Your task to perform on an android device: Go to internet settings Image 0: 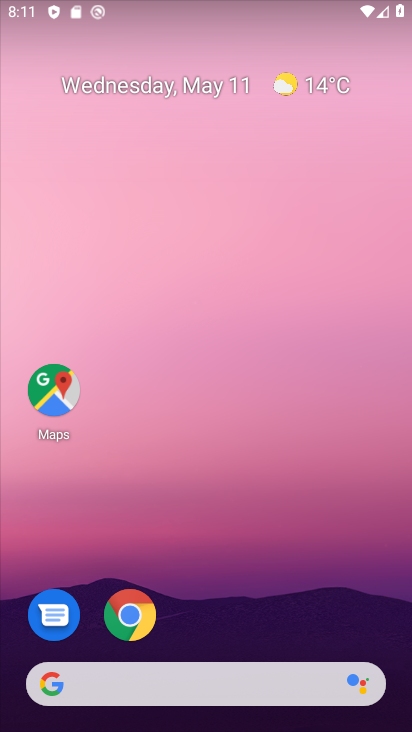
Step 0: drag from (338, 622) to (308, 296)
Your task to perform on an android device: Go to internet settings Image 1: 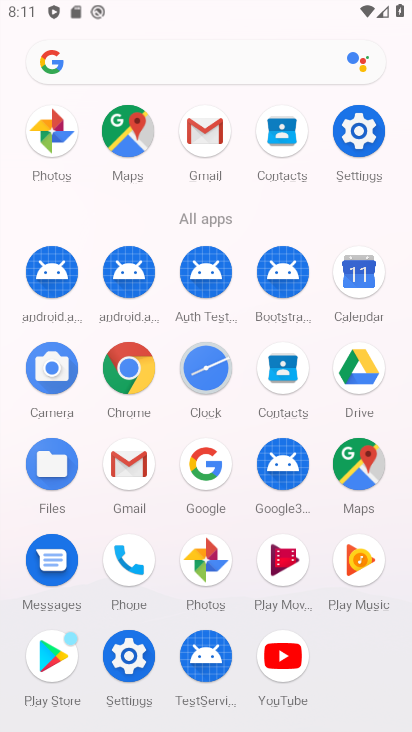
Step 1: click (352, 152)
Your task to perform on an android device: Go to internet settings Image 2: 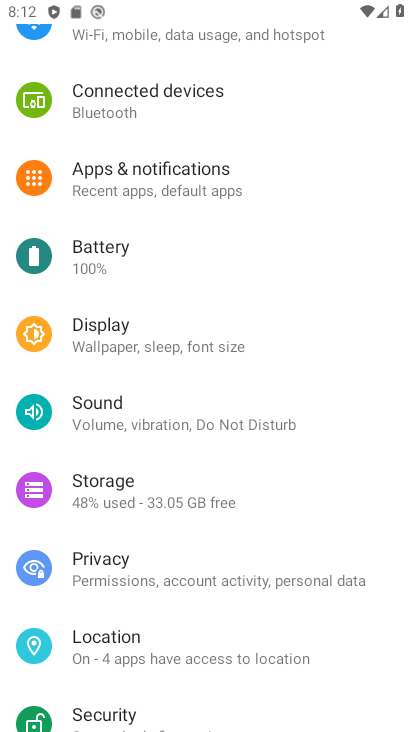
Step 2: drag from (205, 629) to (153, 699)
Your task to perform on an android device: Go to internet settings Image 3: 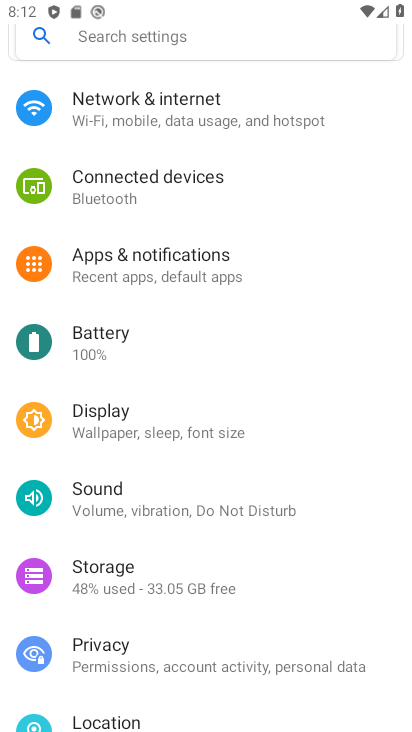
Step 3: click (168, 105)
Your task to perform on an android device: Go to internet settings Image 4: 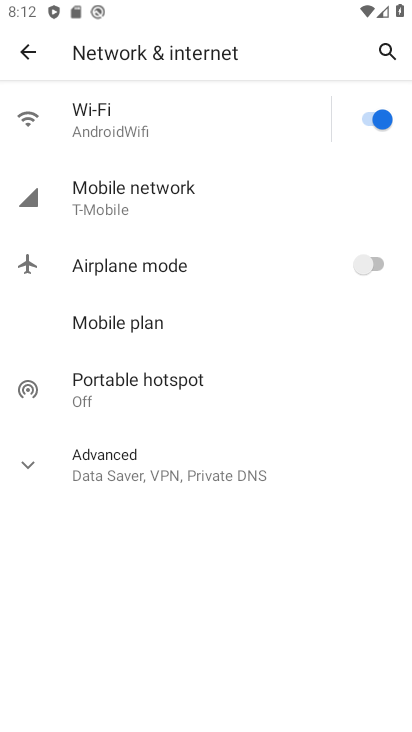
Step 4: task complete